Your task to perform on an android device: create a new album in the google photos Image 0: 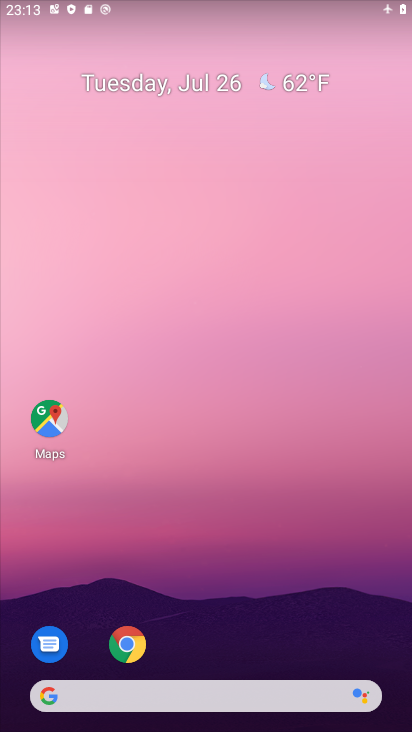
Step 0: drag from (315, 619) to (247, 8)
Your task to perform on an android device: create a new album in the google photos Image 1: 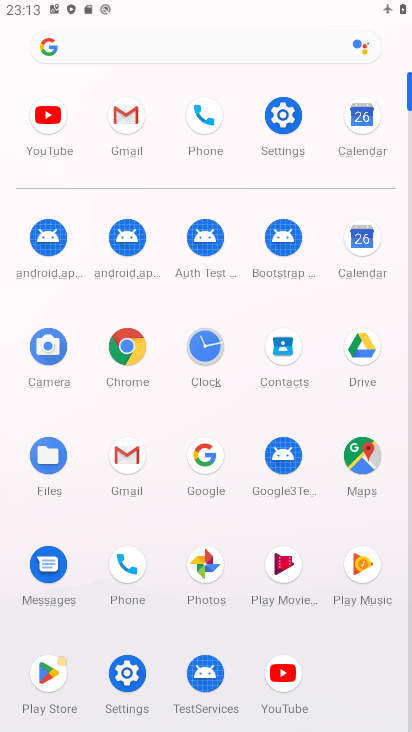
Step 1: click (206, 563)
Your task to perform on an android device: create a new album in the google photos Image 2: 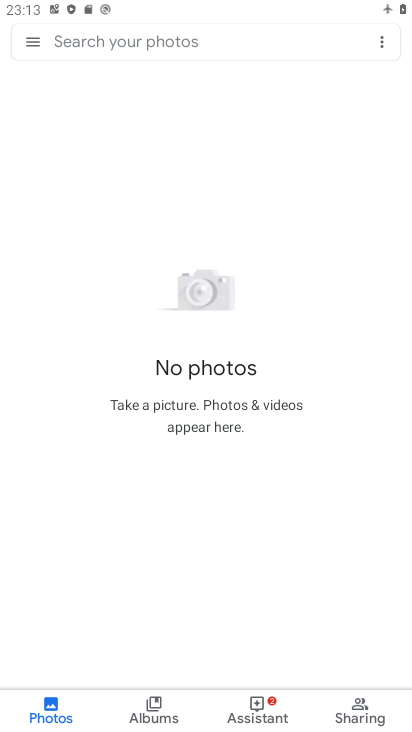
Step 2: task complete